Your task to perform on an android device: Open the web browser Image 0: 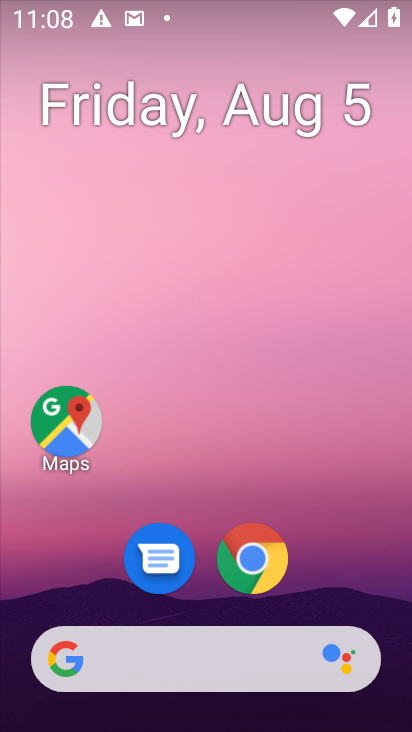
Step 0: press home button
Your task to perform on an android device: Open the web browser Image 1: 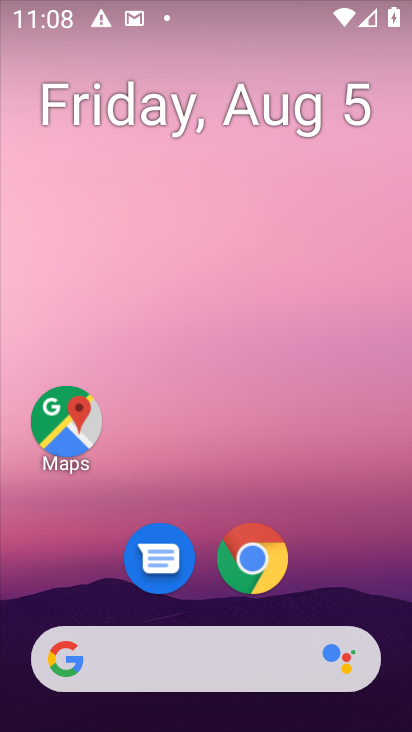
Step 1: drag from (359, 580) to (370, 309)
Your task to perform on an android device: Open the web browser Image 2: 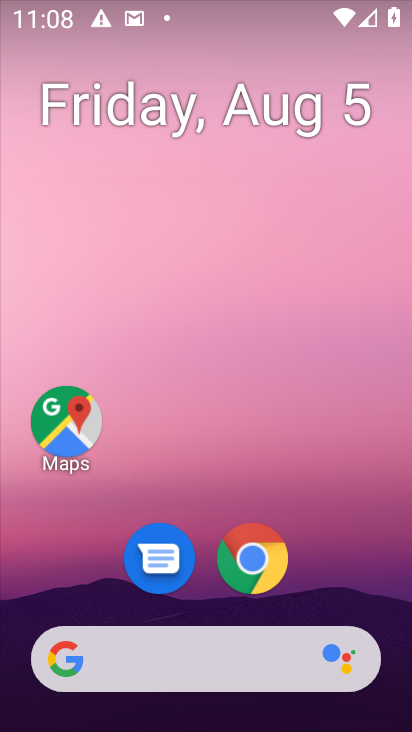
Step 2: drag from (371, 596) to (366, 178)
Your task to perform on an android device: Open the web browser Image 3: 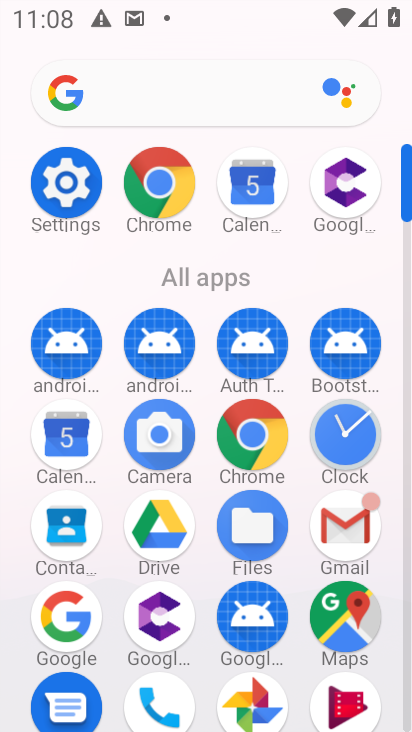
Step 3: click (259, 437)
Your task to perform on an android device: Open the web browser Image 4: 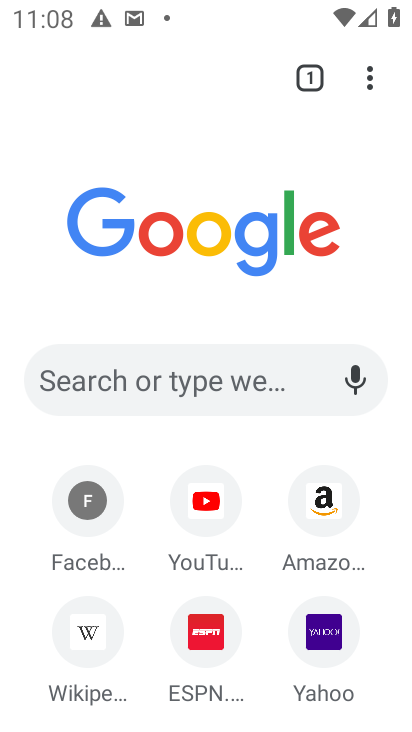
Step 4: task complete